Your task to perform on an android device: Search for the best selling coffee table on Crate & Barrel Image 0: 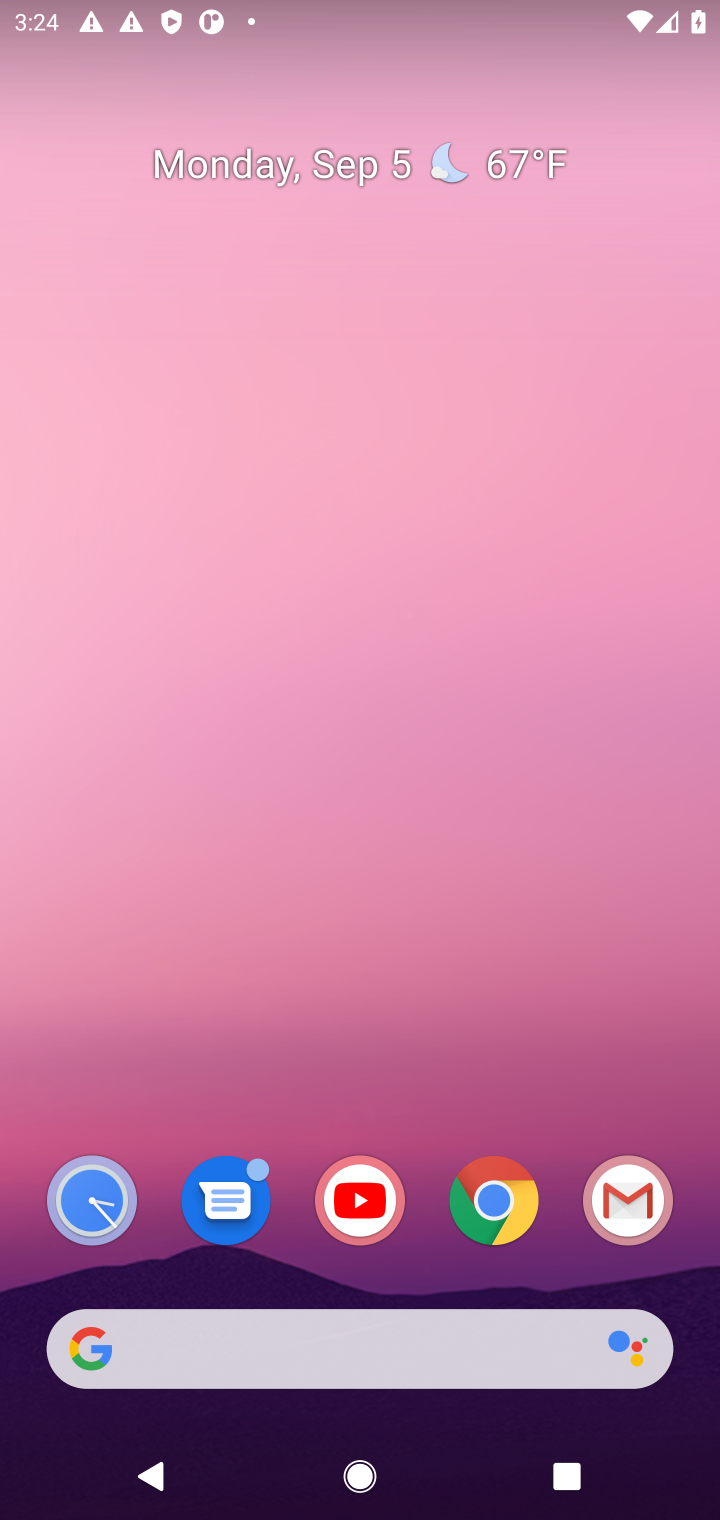
Step 0: click (360, 356)
Your task to perform on an android device: Search for the best selling coffee table on Crate & Barrel Image 1: 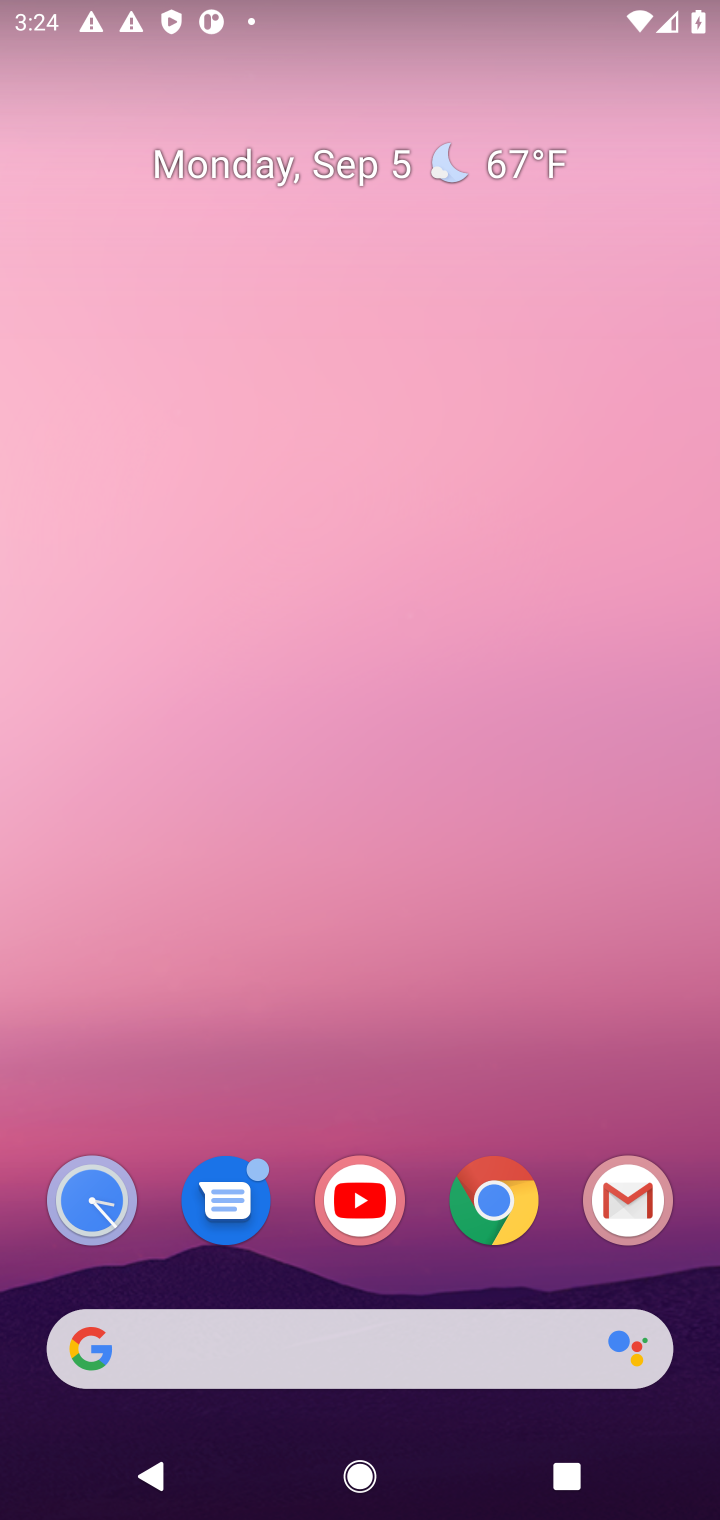
Step 1: drag from (431, 1267) to (384, 367)
Your task to perform on an android device: Search for the best selling coffee table on Crate & Barrel Image 2: 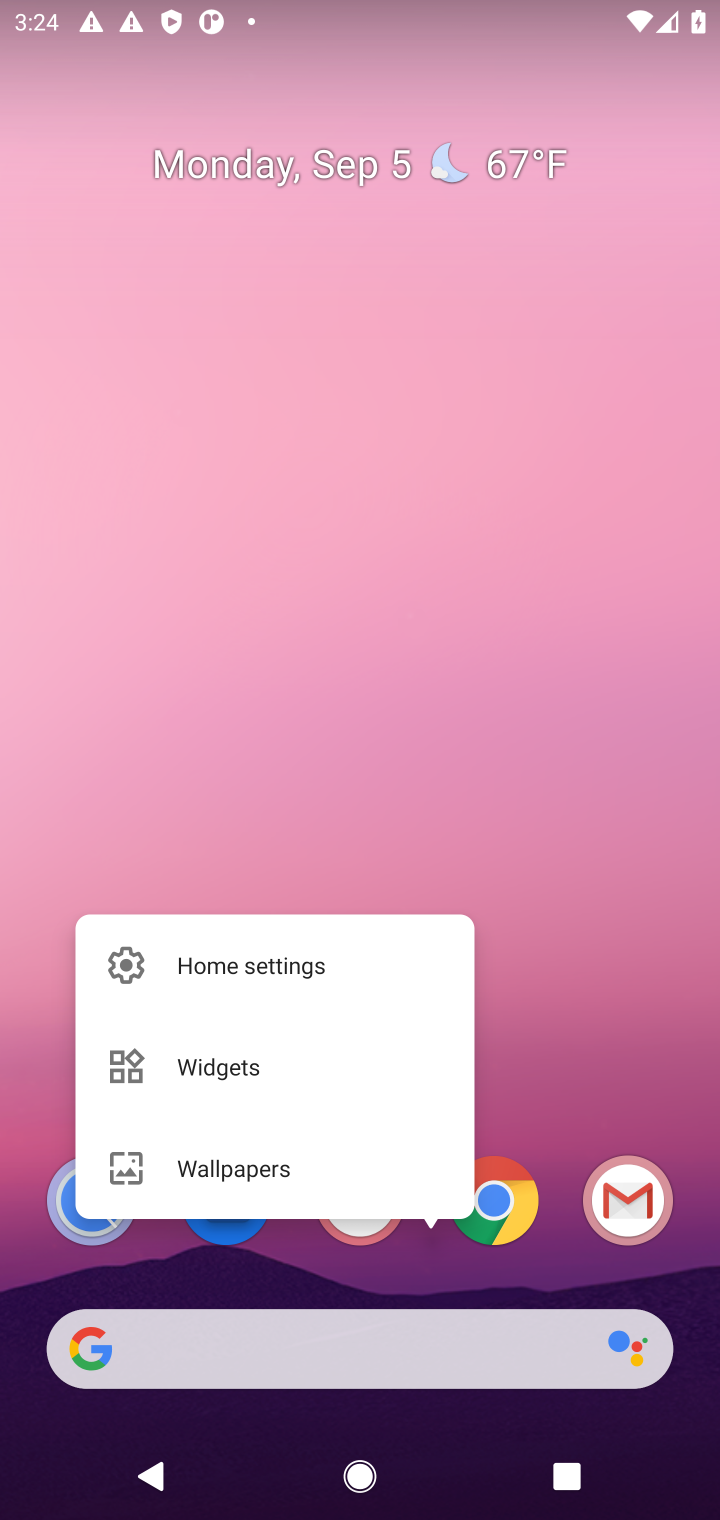
Step 2: click (560, 772)
Your task to perform on an android device: Search for the best selling coffee table on Crate & Barrel Image 3: 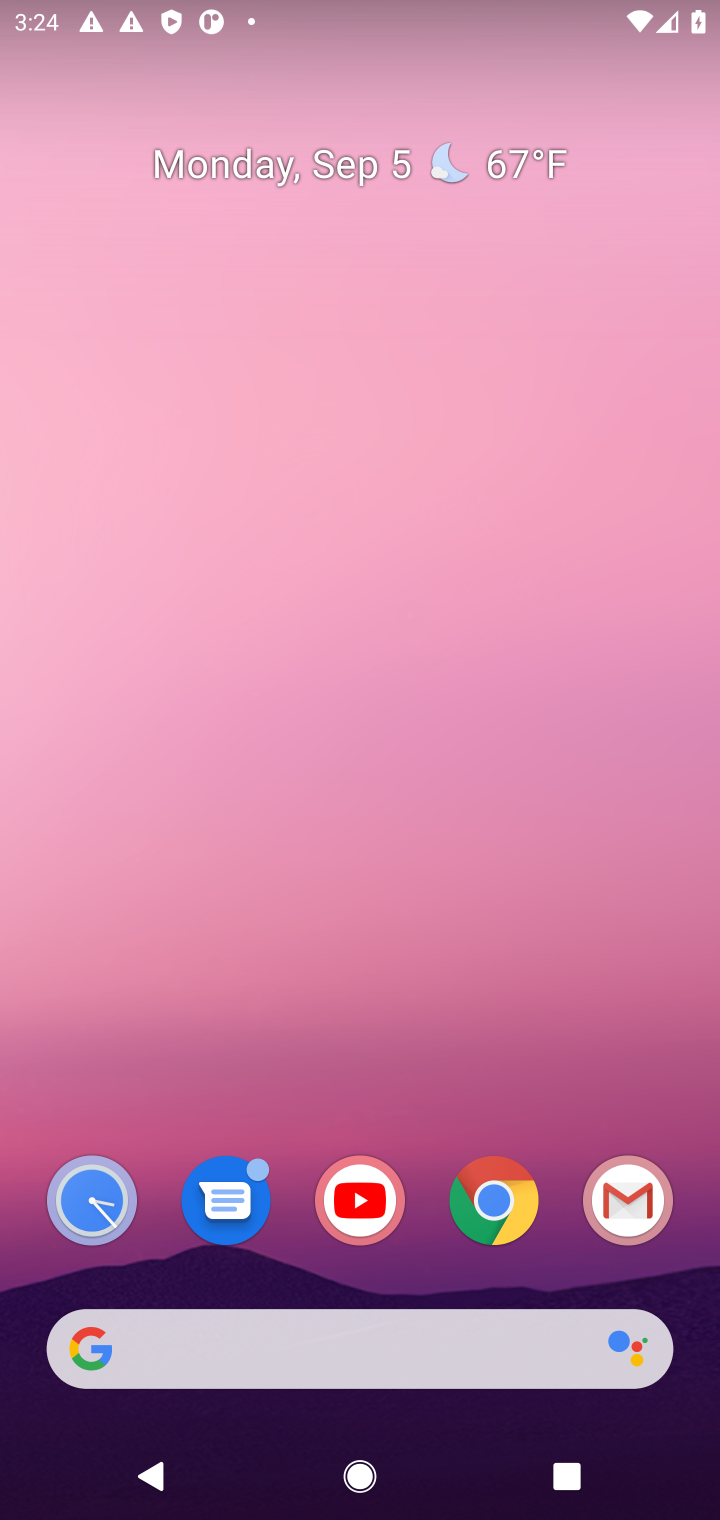
Step 3: drag from (425, 1250) to (362, 266)
Your task to perform on an android device: Search for the best selling coffee table on Crate & Barrel Image 4: 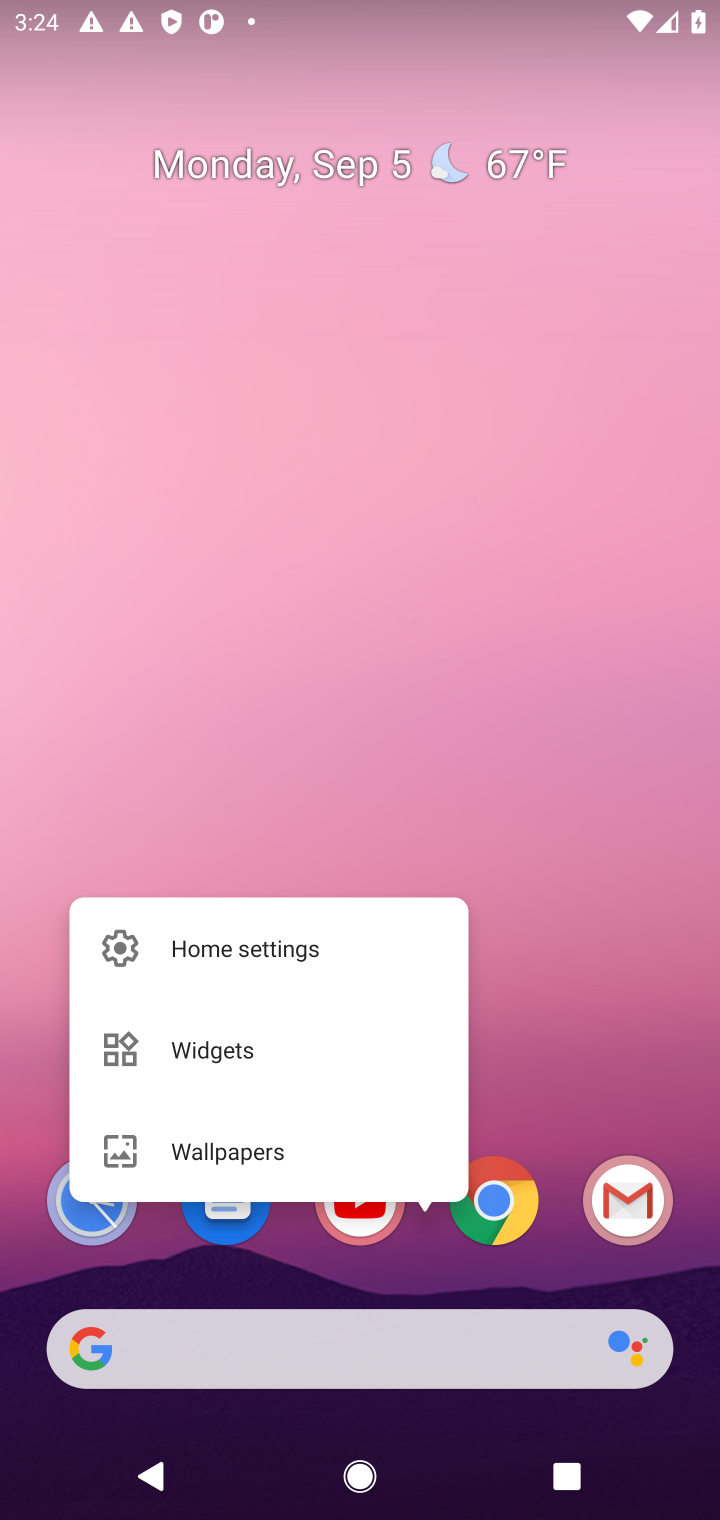
Step 4: click (470, 734)
Your task to perform on an android device: Search for the best selling coffee table on Crate & Barrel Image 5: 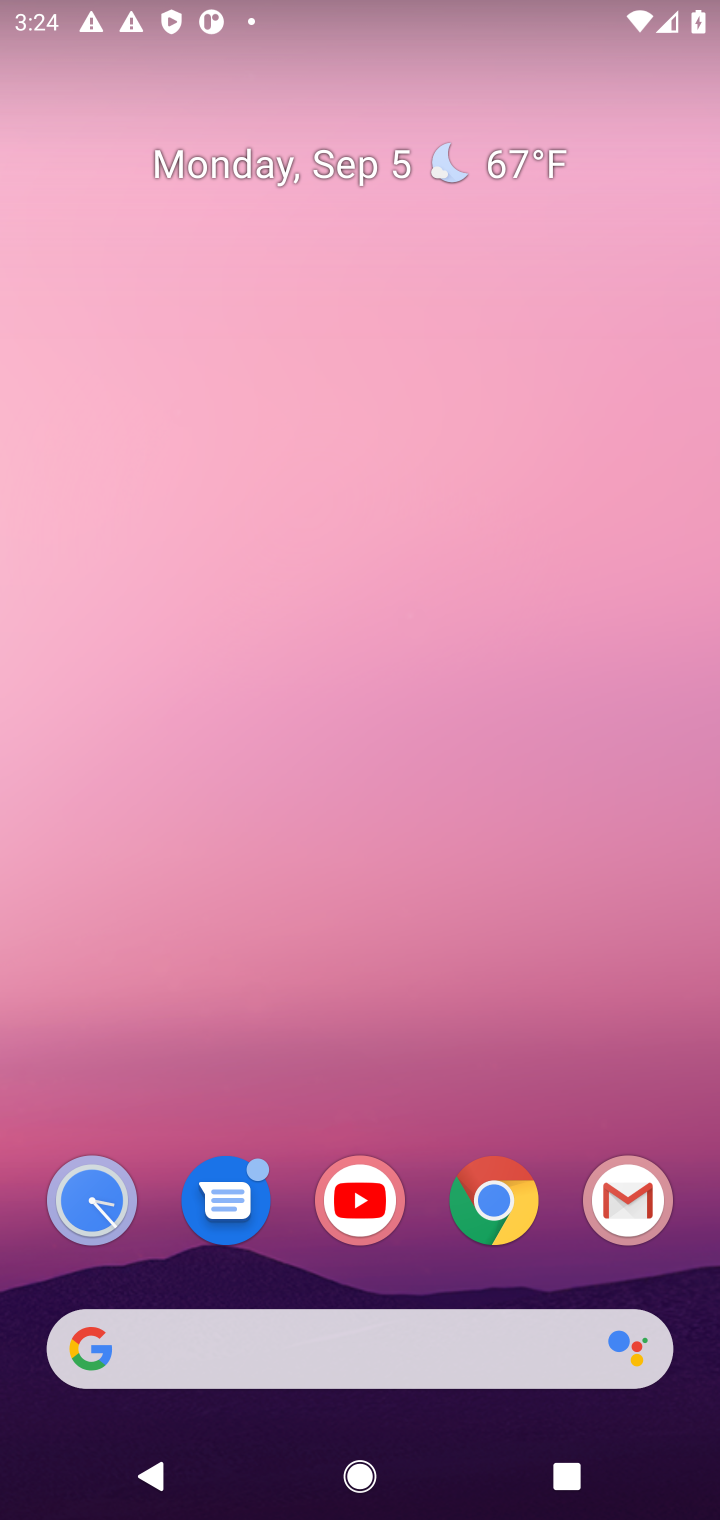
Step 5: click (359, 1329)
Your task to perform on an android device: Search for the best selling coffee table on Crate & Barrel Image 6: 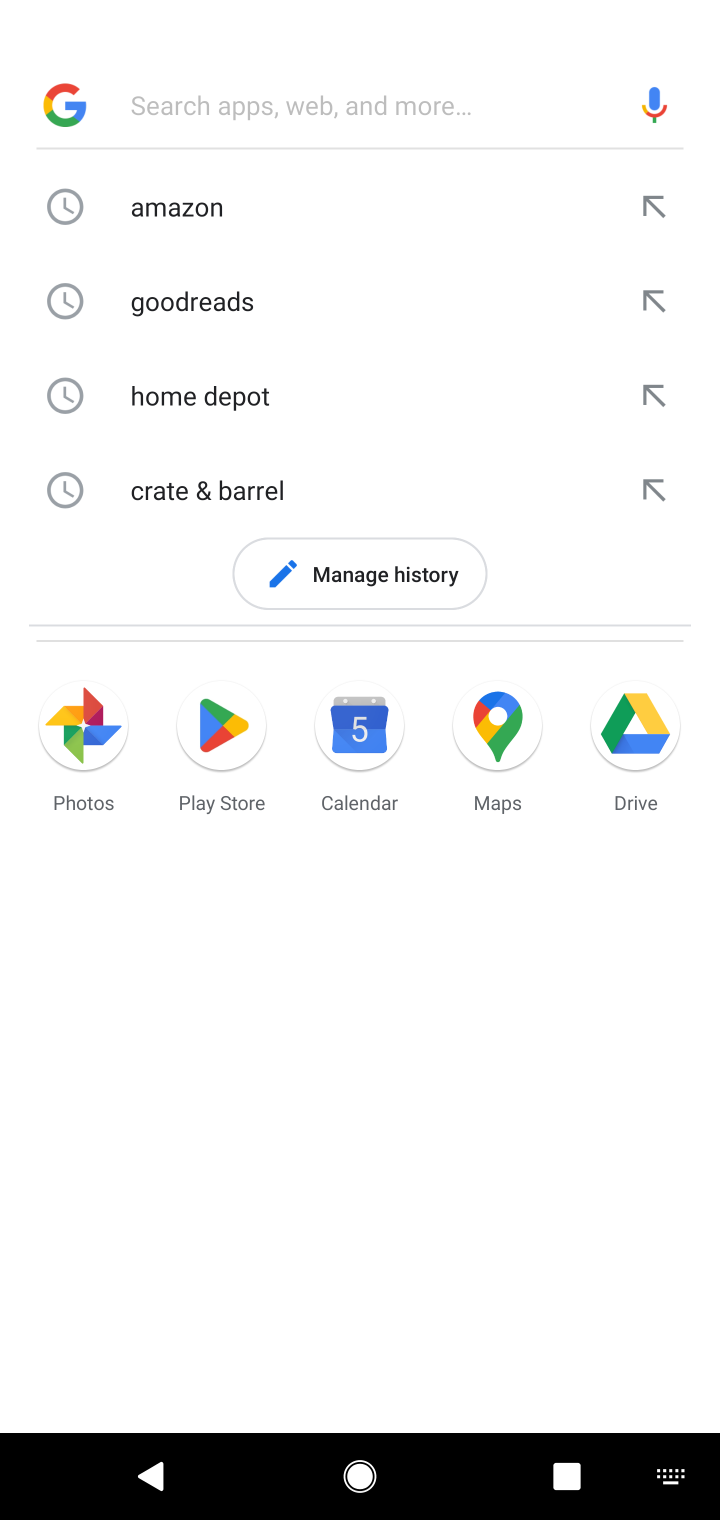
Step 6: click (237, 491)
Your task to perform on an android device: Search for the best selling coffee table on Crate & Barrel Image 7: 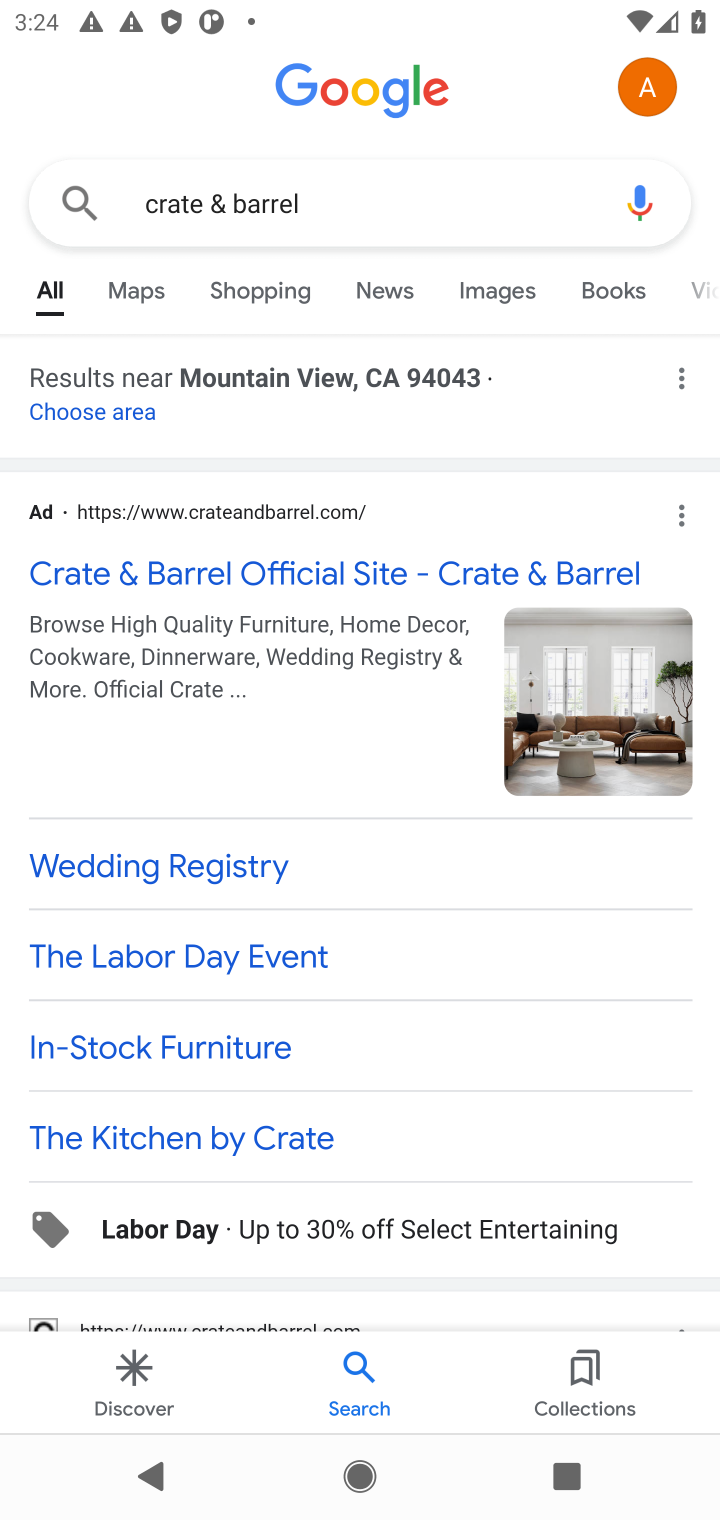
Step 7: click (164, 571)
Your task to perform on an android device: Search for the best selling coffee table on Crate & Barrel Image 8: 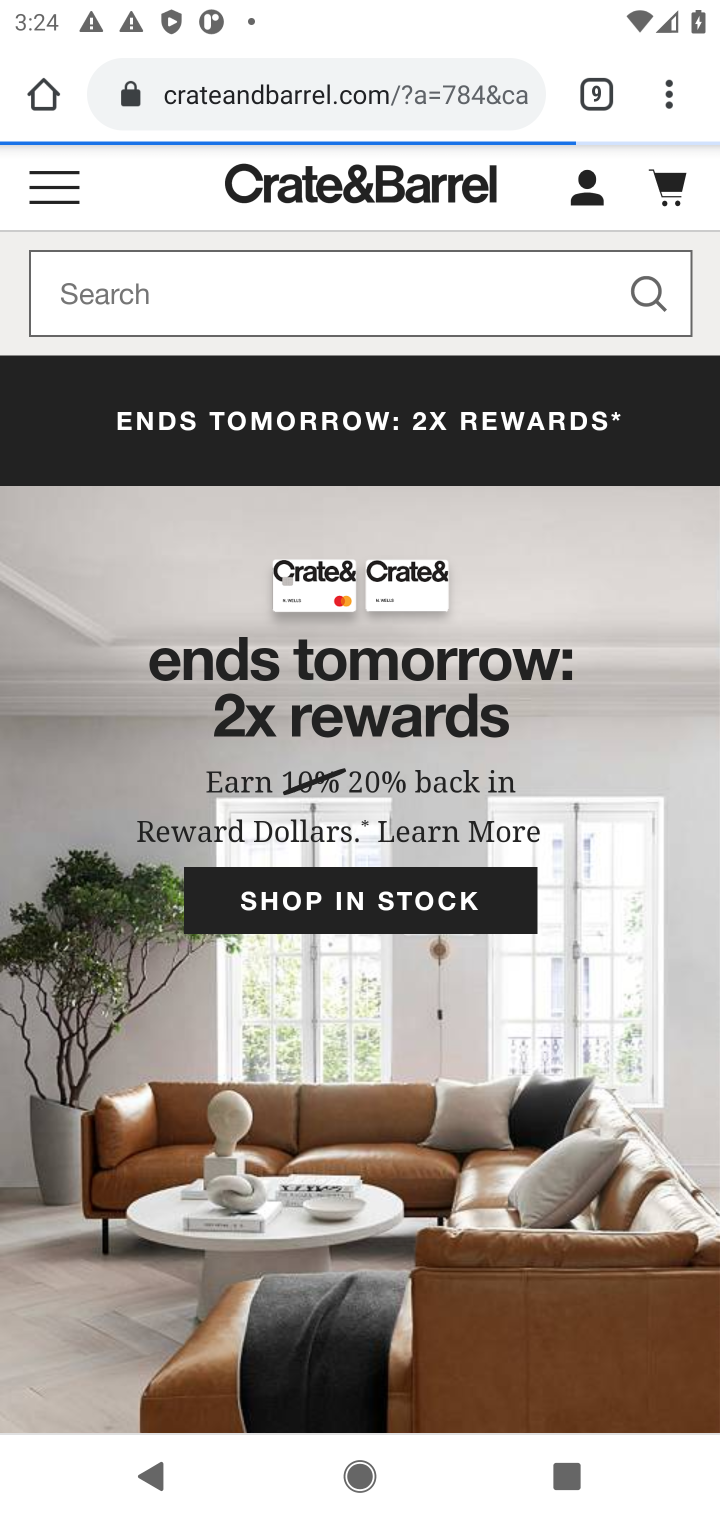
Step 8: click (198, 303)
Your task to perform on an android device: Search for the best selling coffee table on Crate & Barrel Image 9: 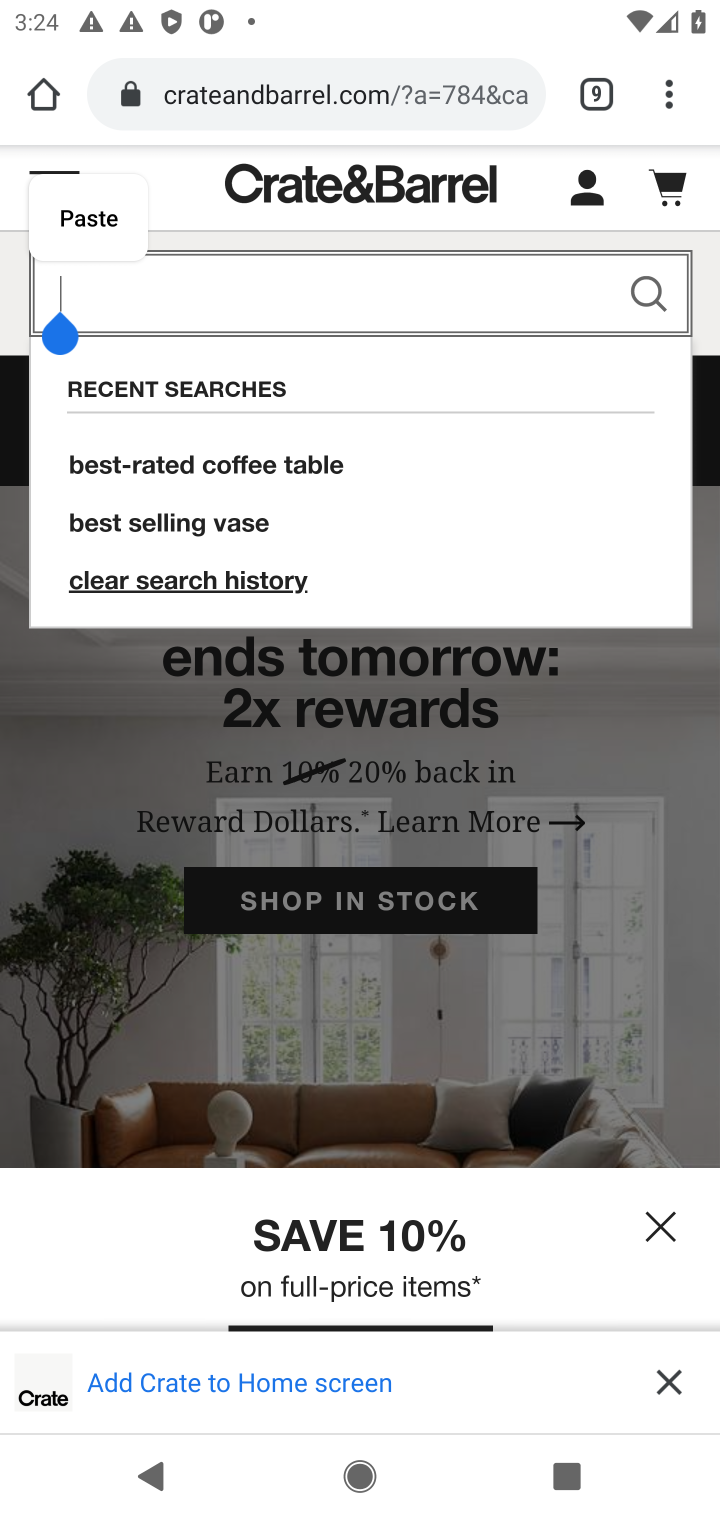
Step 9: type "best selling coffee table"
Your task to perform on an android device: Search for the best selling coffee table on Crate & Barrel Image 10: 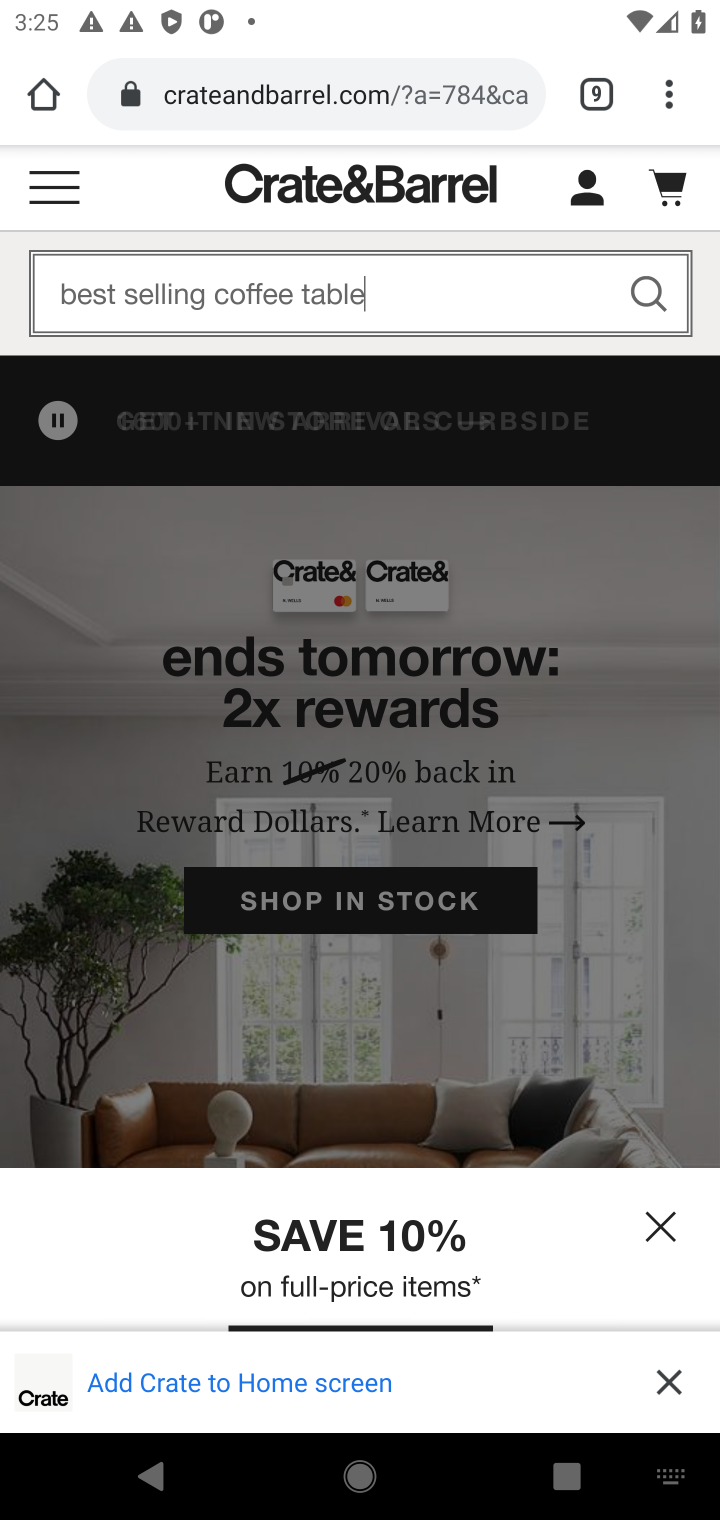
Step 10: click (651, 291)
Your task to perform on an android device: Search for the best selling coffee table on Crate & Barrel Image 11: 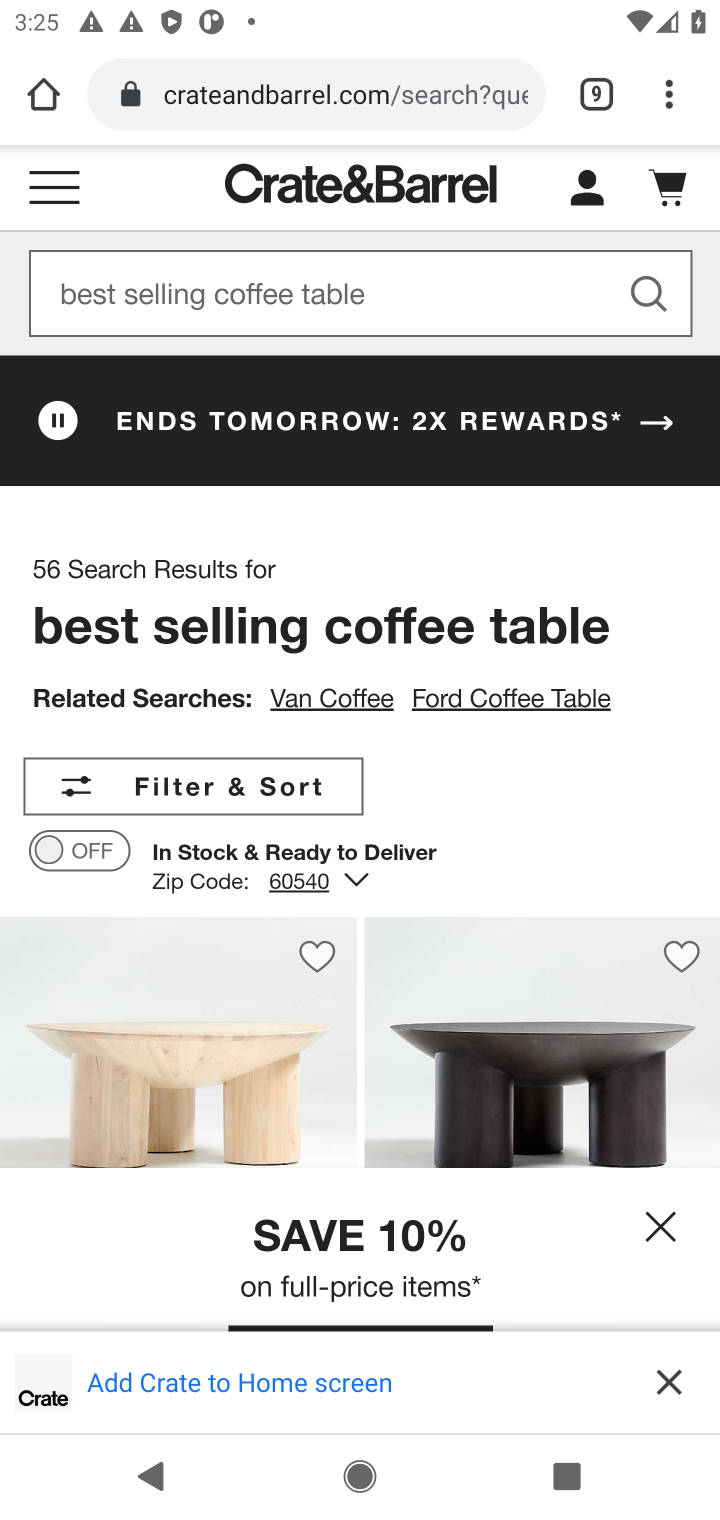
Step 11: task complete